Your task to perform on an android device: Do I have any events today? Image 0: 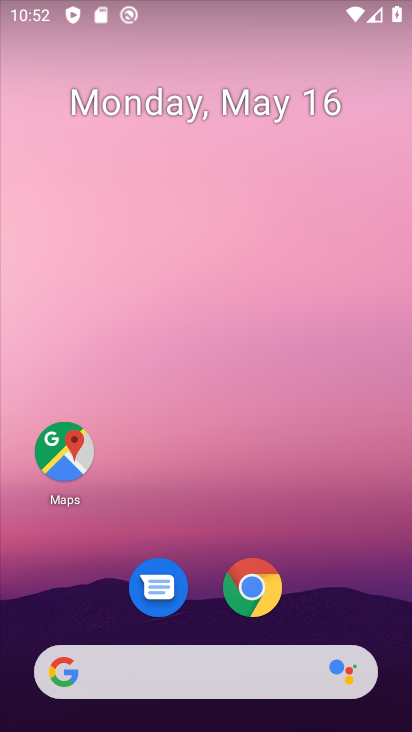
Step 0: drag from (387, 653) to (235, 94)
Your task to perform on an android device: Do I have any events today? Image 1: 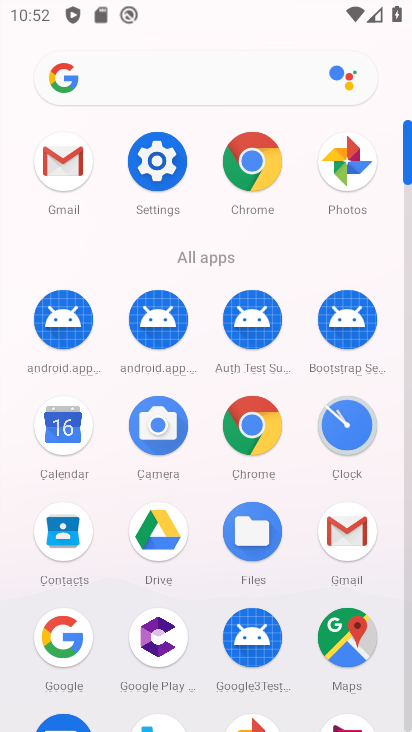
Step 1: click (57, 416)
Your task to perform on an android device: Do I have any events today? Image 2: 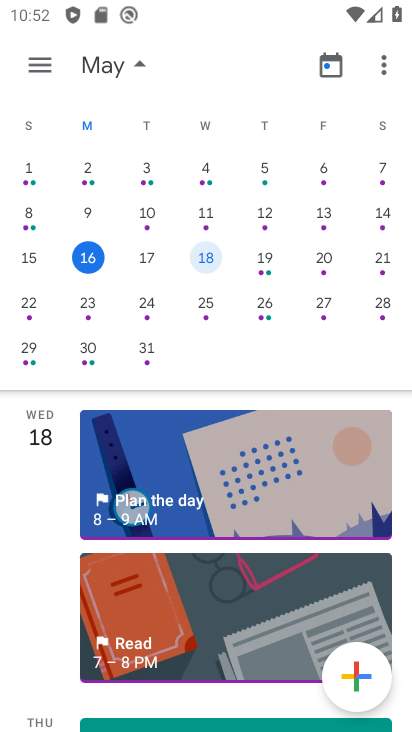
Step 2: click (148, 265)
Your task to perform on an android device: Do I have any events today? Image 3: 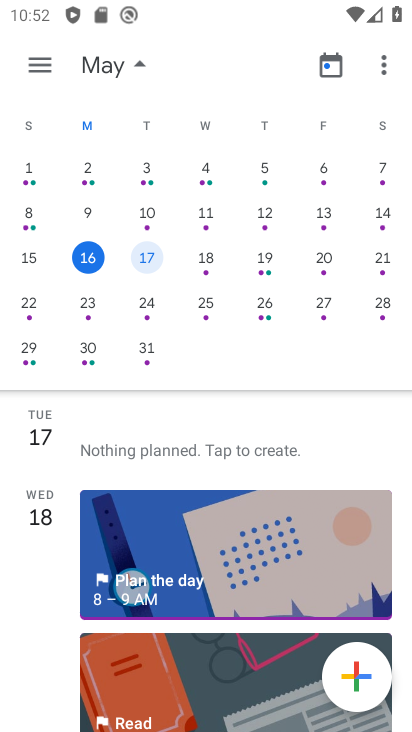
Step 3: task complete